Your task to perform on an android device: toggle notification dots Image 0: 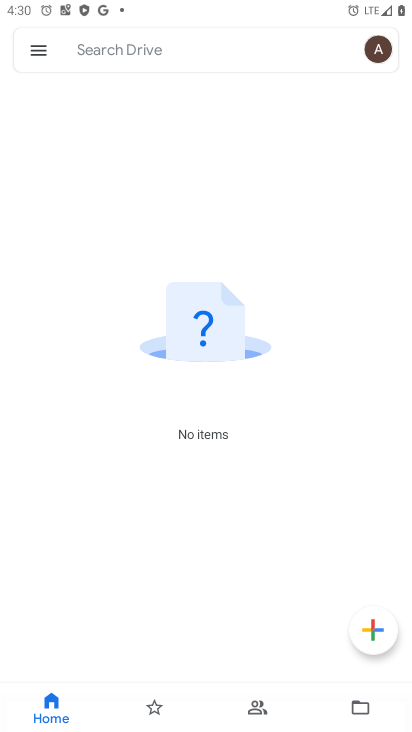
Step 0: press home button
Your task to perform on an android device: toggle notification dots Image 1: 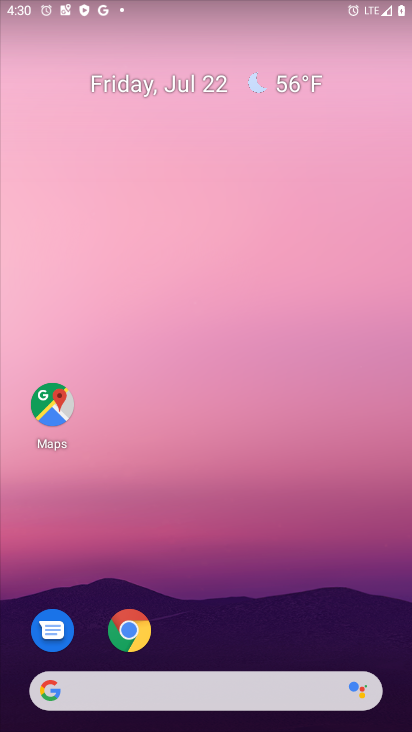
Step 1: drag from (221, 677) to (190, 78)
Your task to perform on an android device: toggle notification dots Image 2: 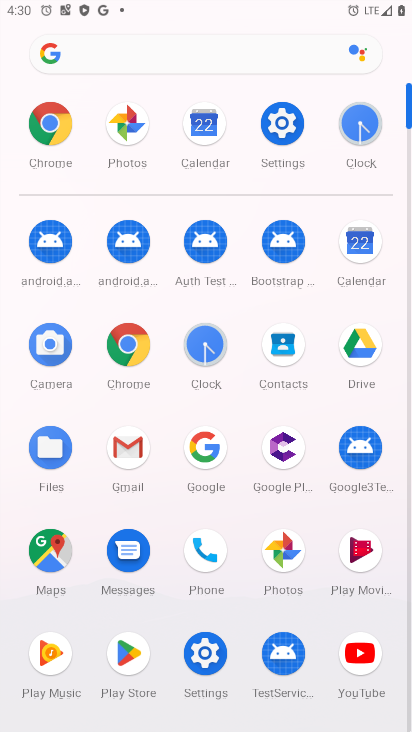
Step 2: click (278, 131)
Your task to perform on an android device: toggle notification dots Image 3: 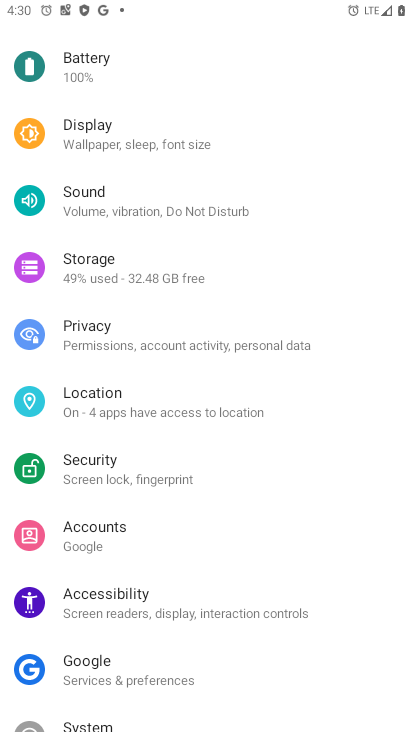
Step 3: drag from (117, 187) to (88, 657)
Your task to perform on an android device: toggle notification dots Image 4: 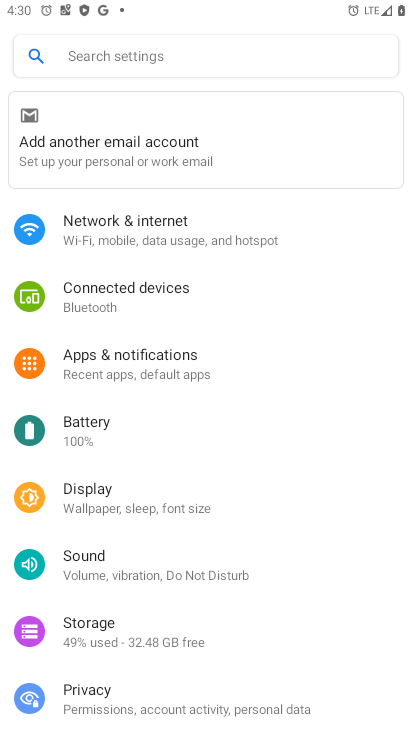
Step 4: click (129, 370)
Your task to perform on an android device: toggle notification dots Image 5: 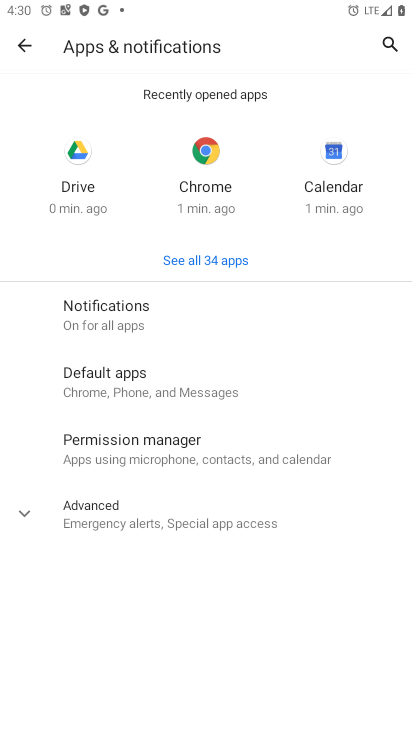
Step 5: click (90, 316)
Your task to perform on an android device: toggle notification dots Image 6: 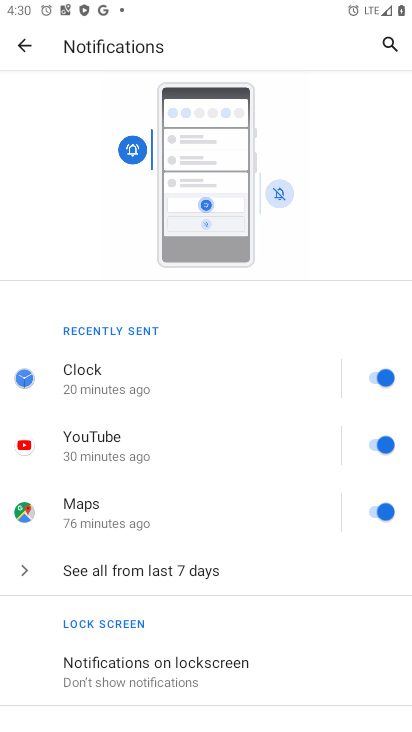
Step 6: drag from (165, 608) to (106, 105)
Your task to perform on an android device: toggle notification dots Image 7: 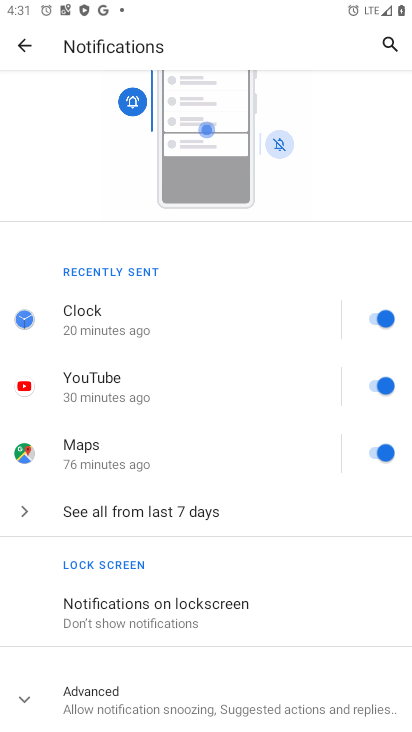
Step 7: click (88, 708)
Your task to perform on an android device: toggle notification dots Image 8: 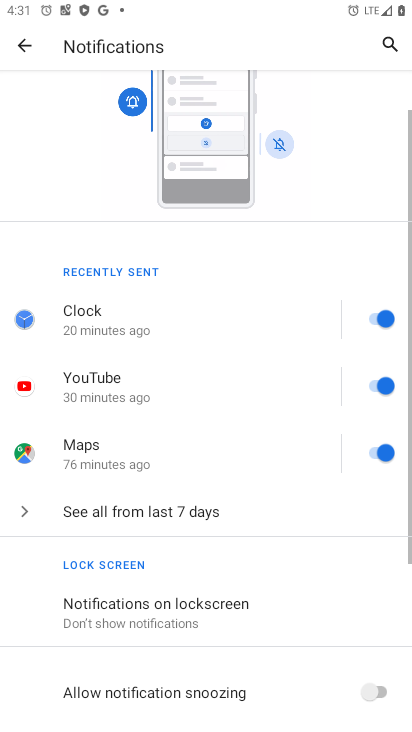
Step 8: drag from (169, 663) to (112, 208)
Your task to perform on an android device: toggle notification dots Image 9: 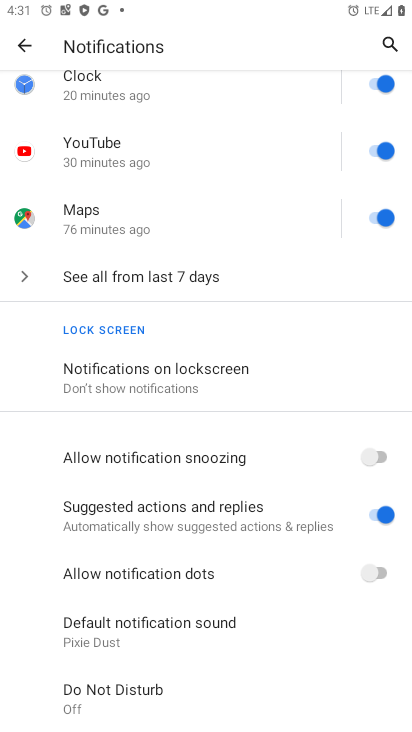
Step 9: click (361, 567)
Your task to perform on an android device: toggle notification dots Image 10: 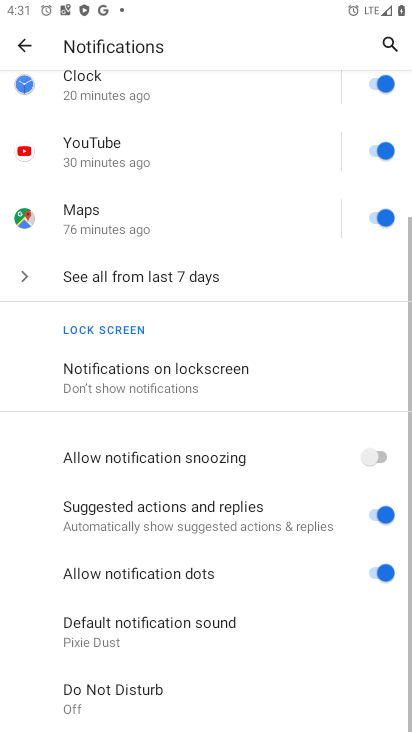
Step 10: task complete